Your task to perform on an android device: turn off location history Image 0: 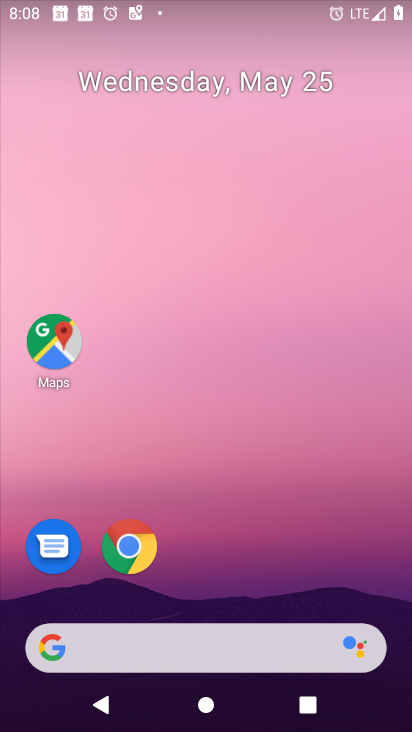
Step 0: drag from (389, 590) to (385, 333)
Your task to perform on an android device: turn off location history Image 1: 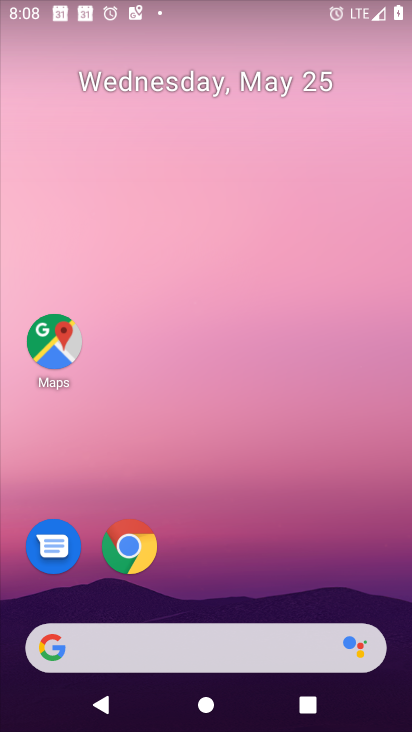
Step 1: drag from (393, 593) to (367, 312)
Your task to perform on an android device: turn off location history Image 2: 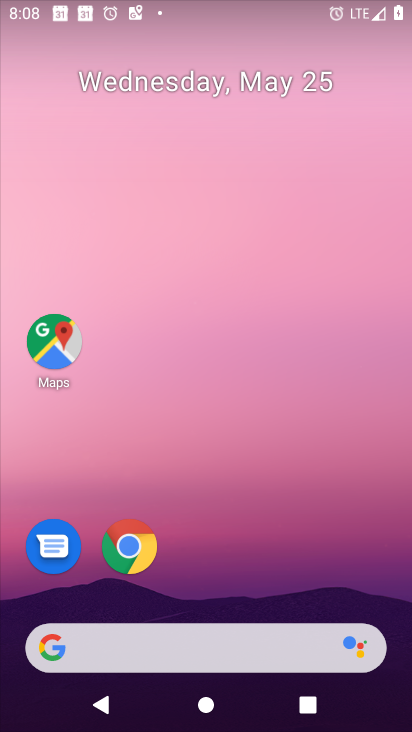
Step 2: drag from (387, 545) to (376, 340)
Your task to perform on an android device: turn off location history Image 3: 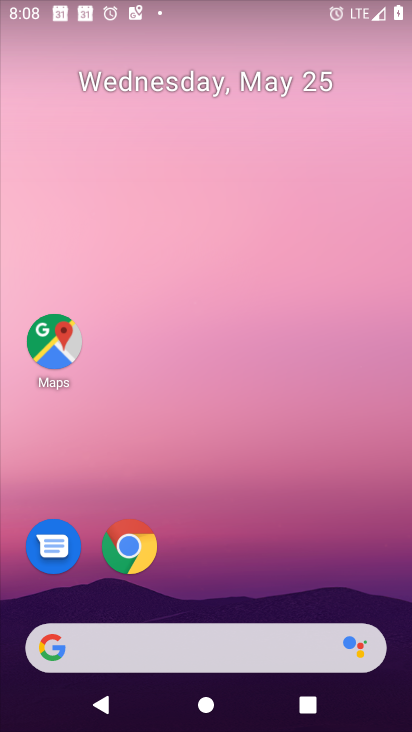
Step 3: drag from (312, 458) to (357, 129)
Your task to perform on an android device: turn off location history Image 4: 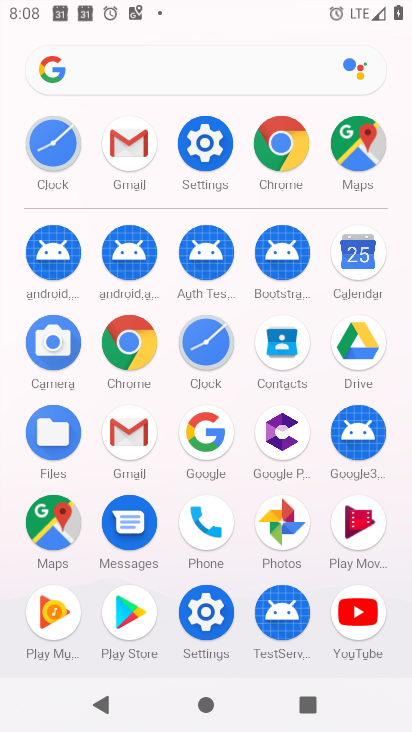
Step 4: click (211, 153)
Your task to perform on an android device: turn off location history Image 5: 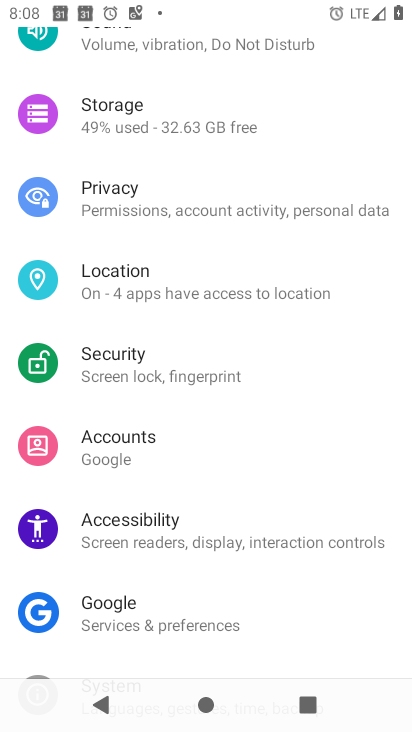
Step 5: drag from (309, 553) to (324, 475)
Your task to perform on an android device: turn off location history Image 6: 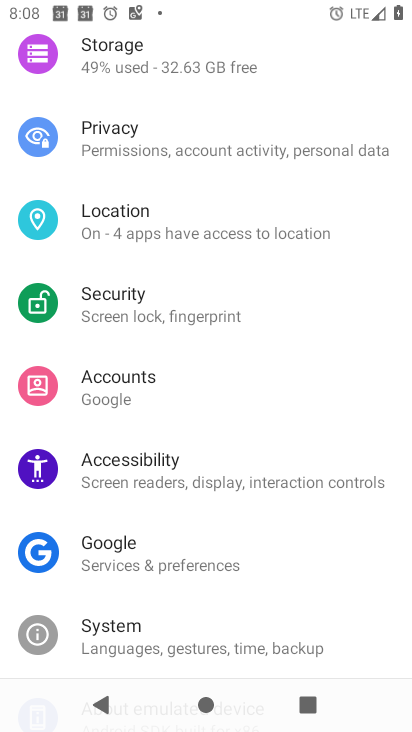
Step 6: drag from (311, 564) to (336, 407)
Your task to perform on an android device: turn off location history Image 7: 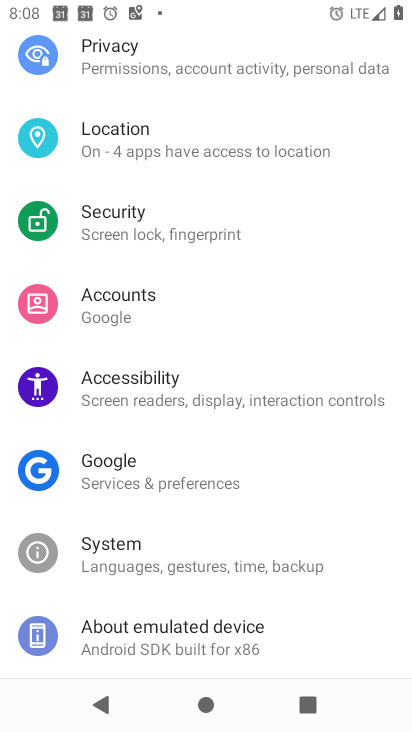
Step 7: drag from (342, 537) to (360, 400)
Your task to perform on an android device: turn off location history Image 8: 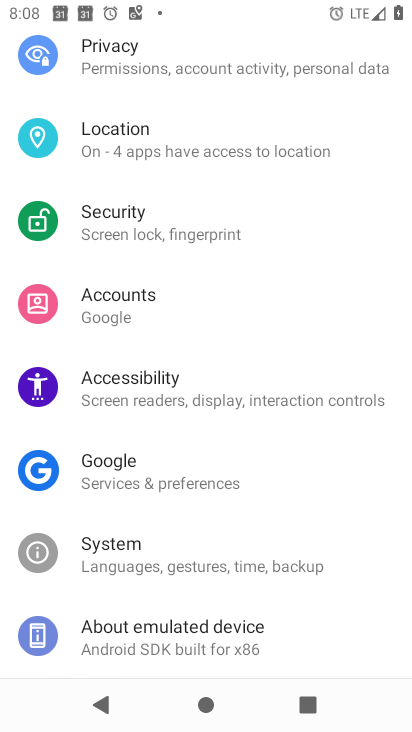
Step 8: drag from (356, 313) to (351, 397)
Your task to perform on an android device: turn off location history Image 9: 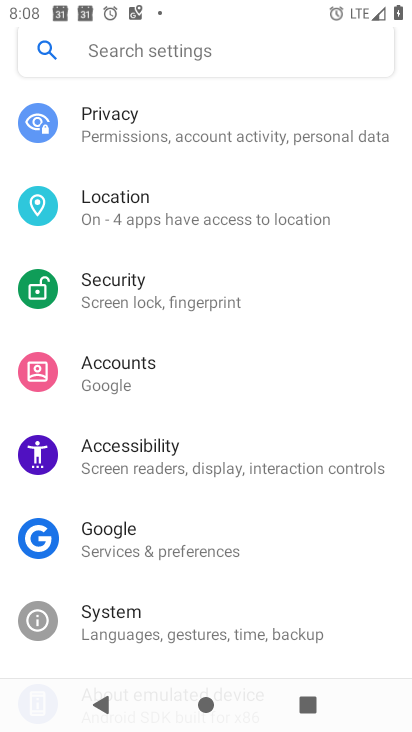
Step 9: drag from (344, 330) to (336, 444)
Your task to perform on an android device: turn off location history Image 10: 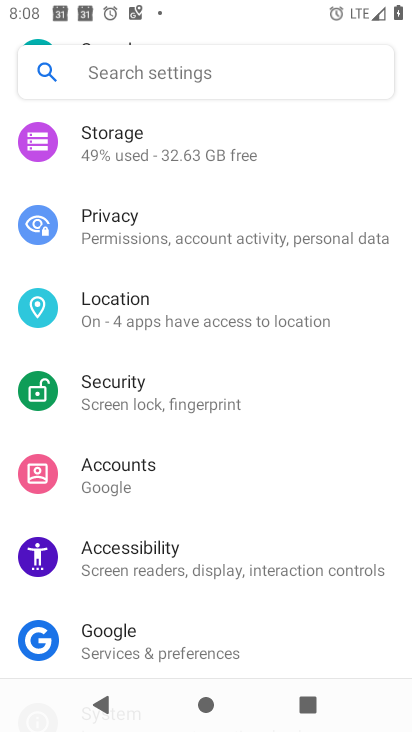
Step 10: drag from (346, 361) to (342, 456)
Your task to perform on an android device: turn off location history Image 11: 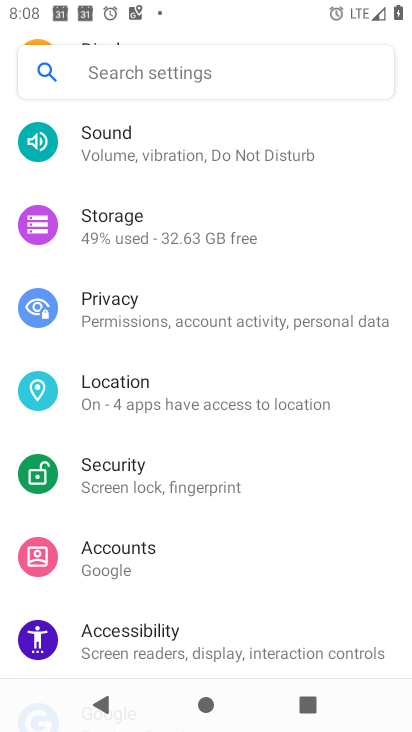
Step 11: drag from (357, 372) to (362, 481)
Your task to perform on an android device: turn off location history Image 12: 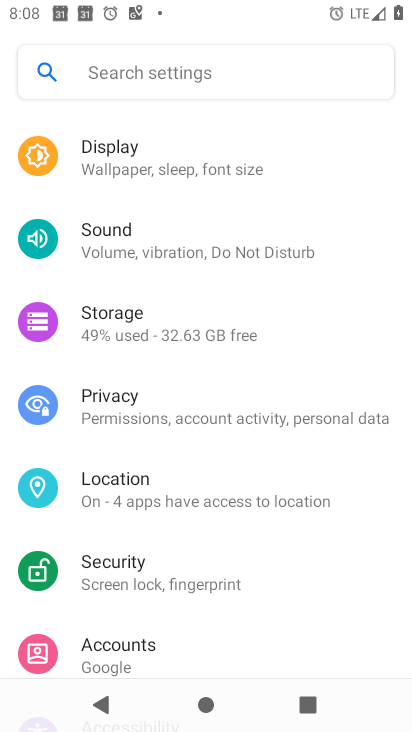
Step 12: drag from (369, 311) to (364, 434)
Your task to perform on an android device: turn off location history Image 13: 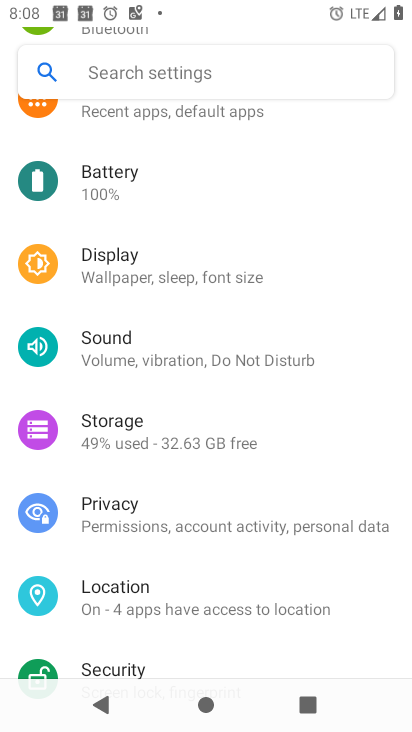
Step 13: drag from (364, 321) to (352, 413)
Your task to perform on an android device: turn off location history Image 14: 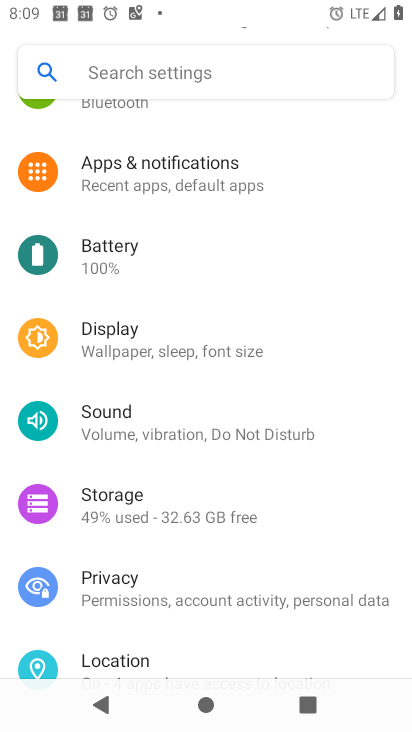
Step 14: drag from (360, 497) to (363, 384)
Your task to perform on an android device: turn off location history Image 15: 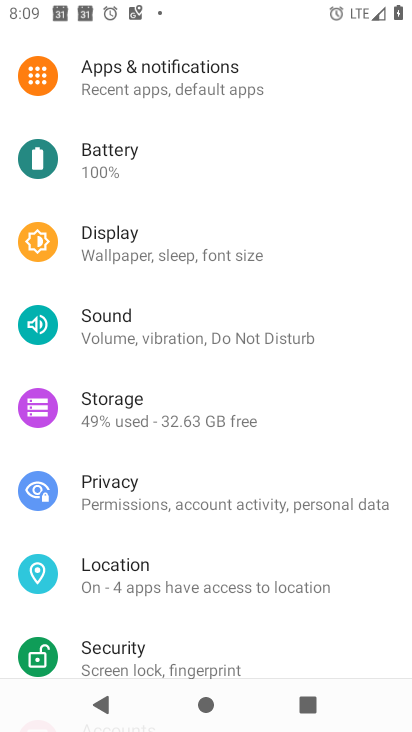
Step 15: drag from (354, 515) to (359, 417)
Your task to perform on an android device: turn off location history Image 16: 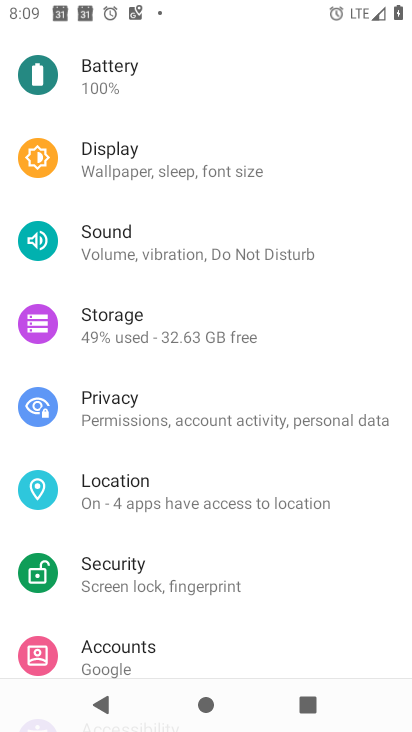
Step 16: click (259, 504)
Your task to perform on an android device: turn off location history Image 17: 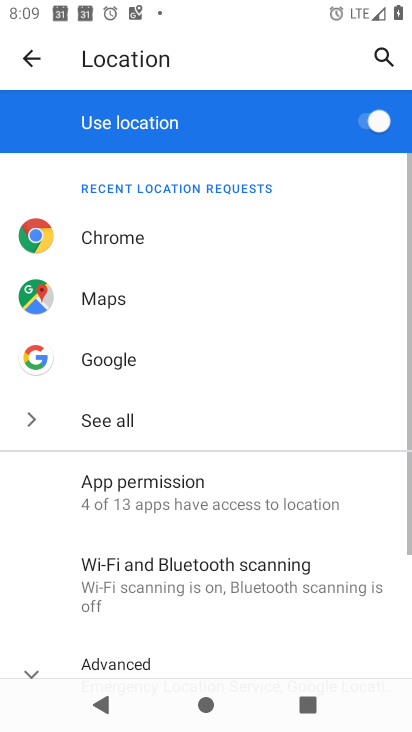
Step 17: drag from (275, 536) to (295, 385)
Your task to perform on an android device: turn off location history Image 18: 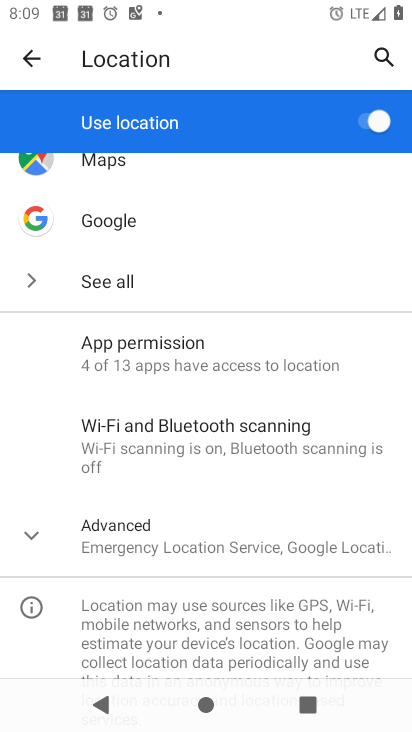
Step 18: drag from (282, 587) to (281, 448)
Your task to perform on an android device: turn off location history Image 19: 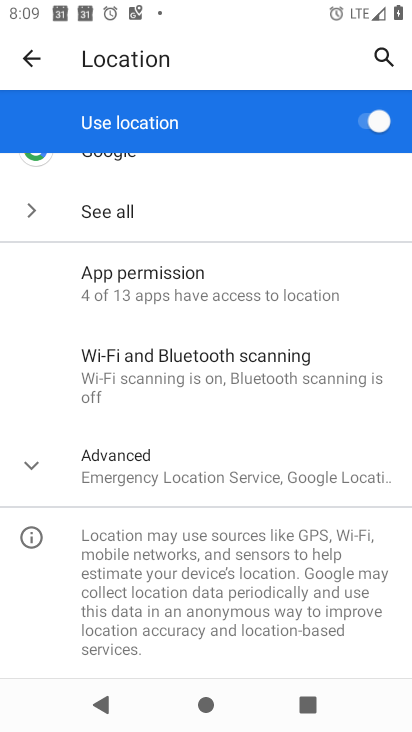
Step 19: click (277, 473)
Your task to perform on an android device: turn off location history Image 20: 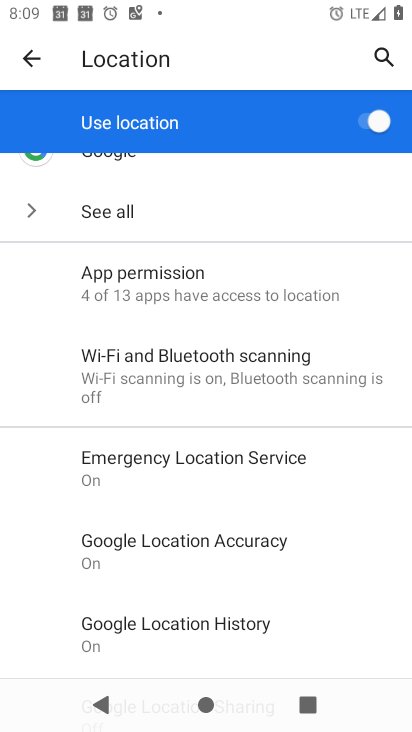
Step 20: drag from (307, 562) to (331, 487)
Your task to perform on an android device: turn off location history Image 21: 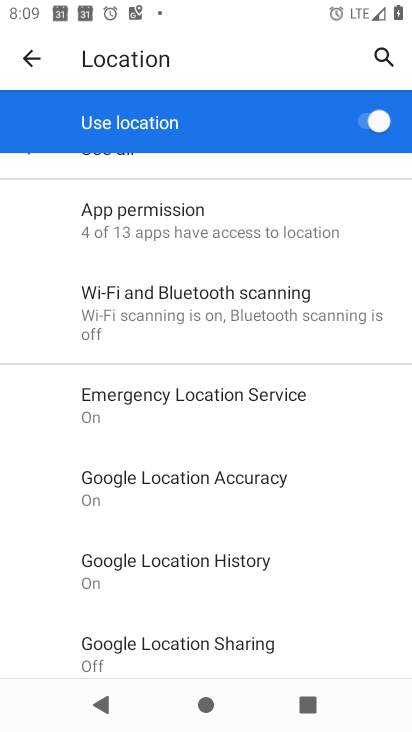
Step 21: click (279, 574)
Your task to perform on an android device: turn off location history Image 22: 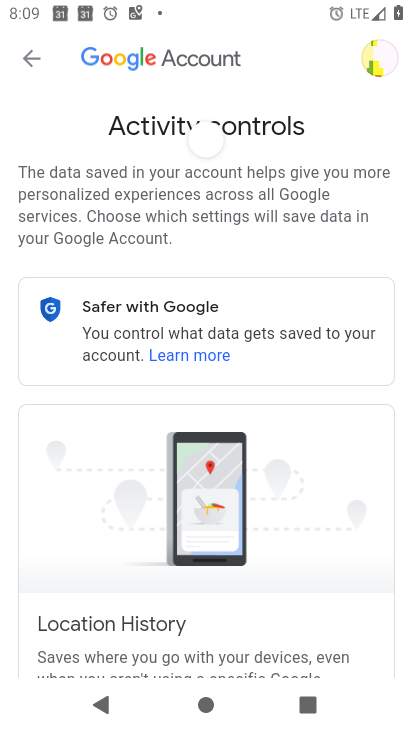
Step 22: drag from (279, 574) to (282, 476)
Your task to perform on an android device: turn off location history Image 23: 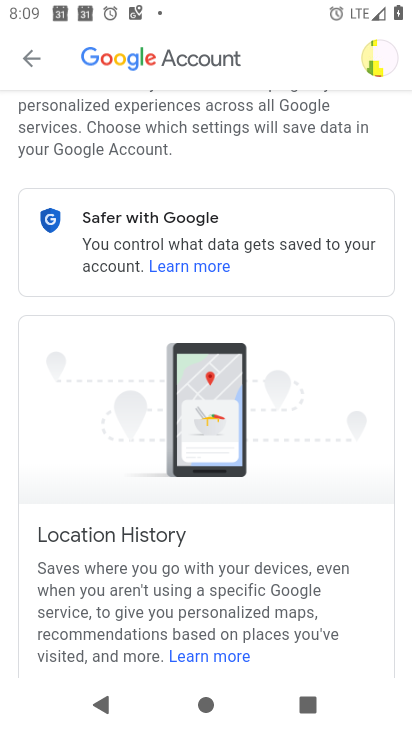
Step 23: drag from (276, 572) to (286, 490)
Your task to perform on an android device: turn off location history Image 24: 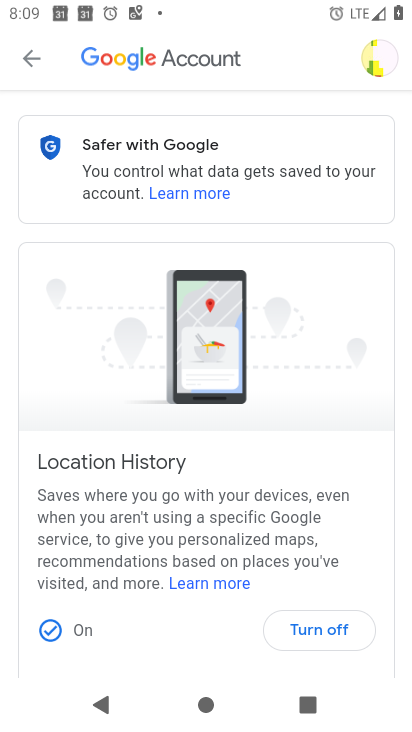
Step 24: drag from (240, 576) to (245, 436)
Your task to perform on an android device: turn off location history Image 25: 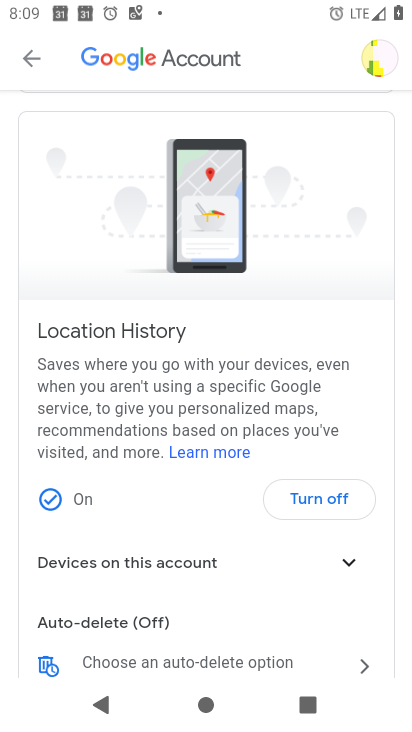
Step 25: click (309, 488)
Your task to perform on an android device: turn off location history Image 26: 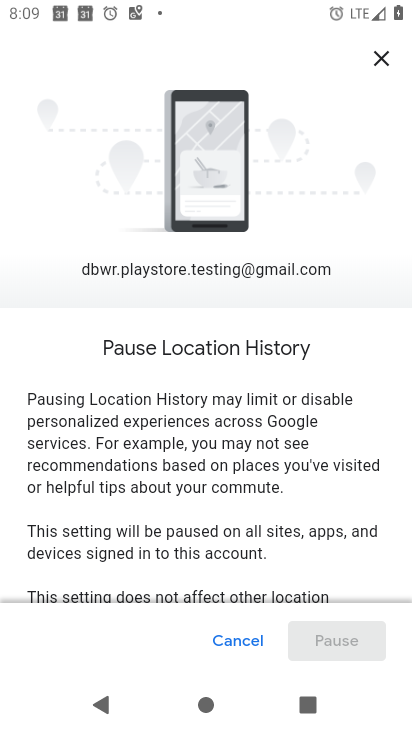
Step 26: drag from (266, 546) to (277, 484)
Your task to perform on an android device: turn off location history Image 27: 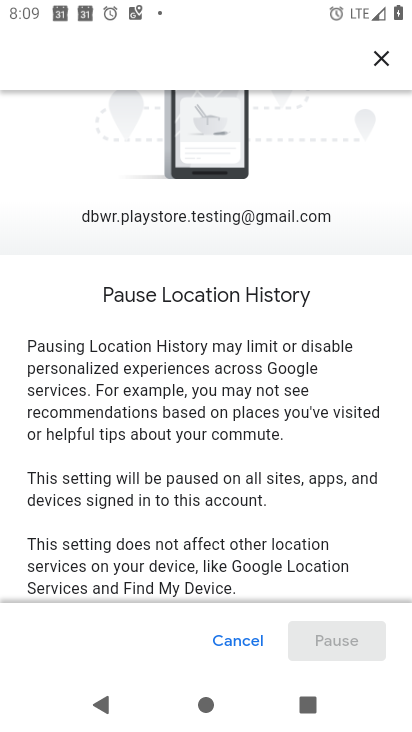
Step 27: drag from (285, 557) to (287, 468)
Your task to perform on an android device: turn off location history Image 28: 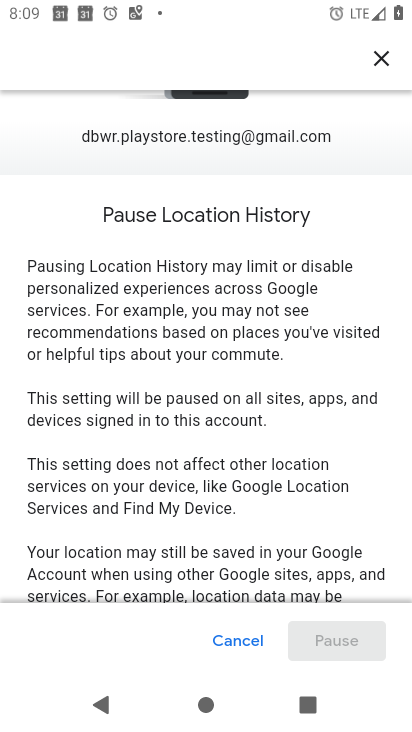
Step 28: drag from (291, 559) to (286, 472)
Your task to perform on an android device: turn off location history Image 29: 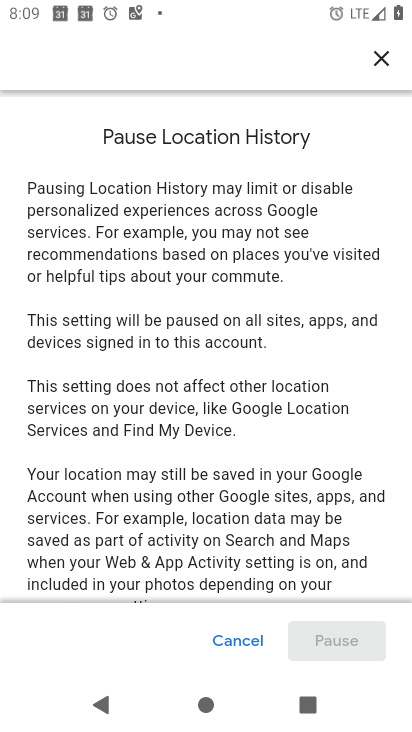
Step 29: drag from (293, 553) to (290, 449)
Your task to perform on an android device: turn off location history Image 30: 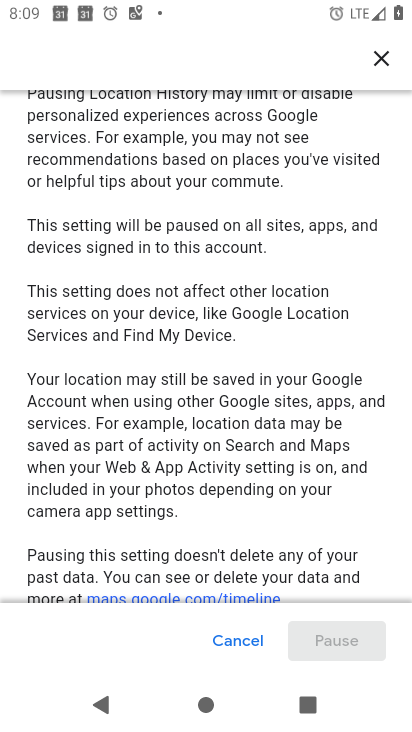
Step 30: drag from (275, 557) to (285, 482)
Your task to perform on an android device: turn off location history Image 31: 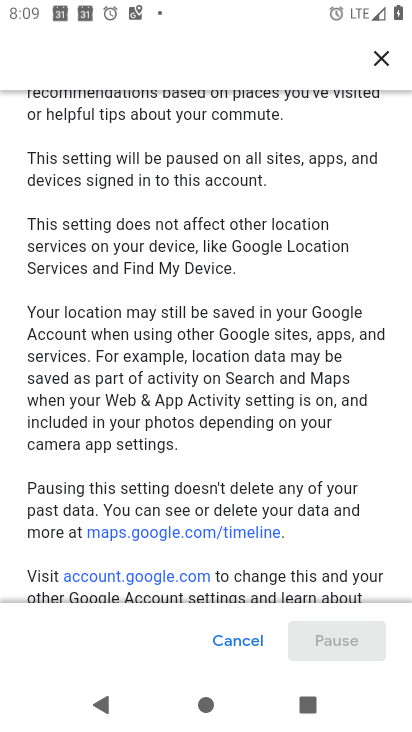
Step 31: drag from (281, 542) to (285, 443)
Your task to perform on an android device: turn off location history Image 32: 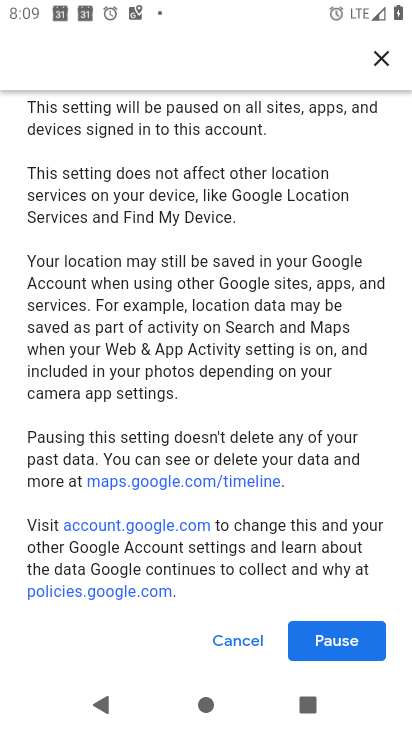
Step 32: click (313, 633)
Your task to perform on an android device: turn off location history Image 33: 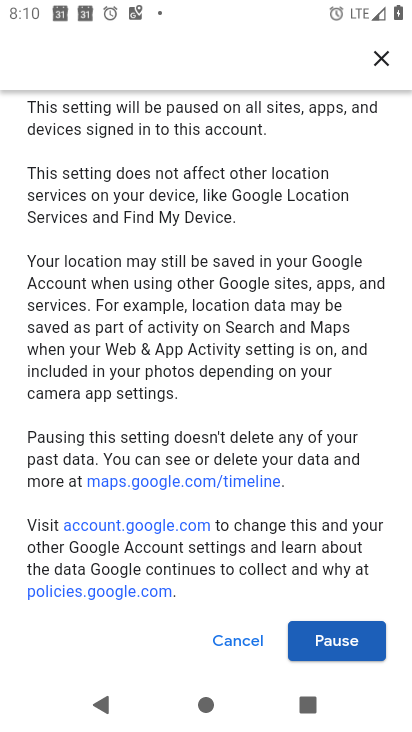
Step 33: click (334, 647)
Your task to perform on an android device: turn off location history Image 34: 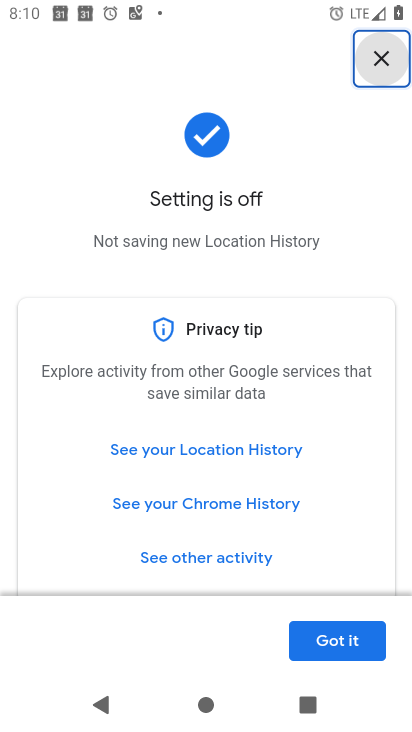
Step 34: task complete